Your task to perform on an android device: set the stopwatch Image 0: 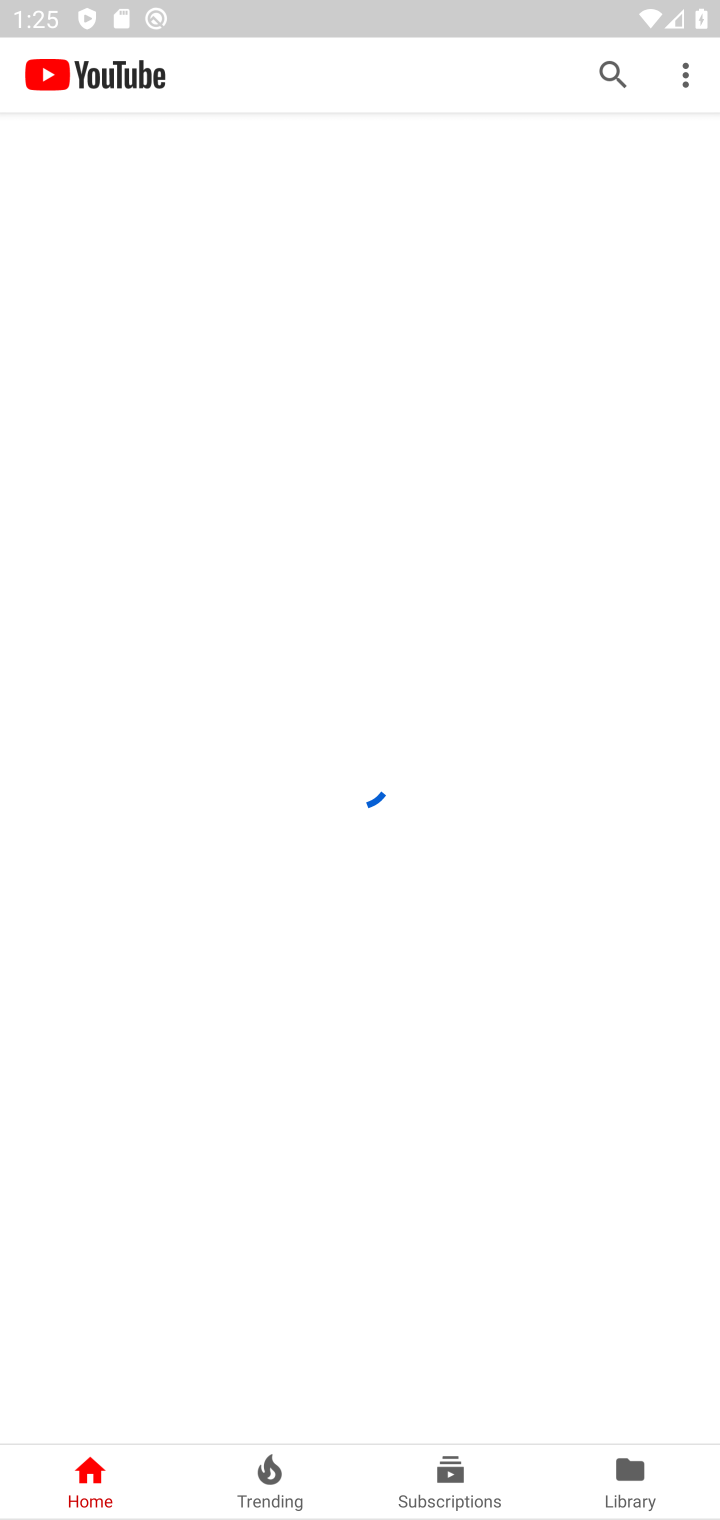
Step 0: press home button
Your task to perform on an android device: set the stopwatch Image 1: 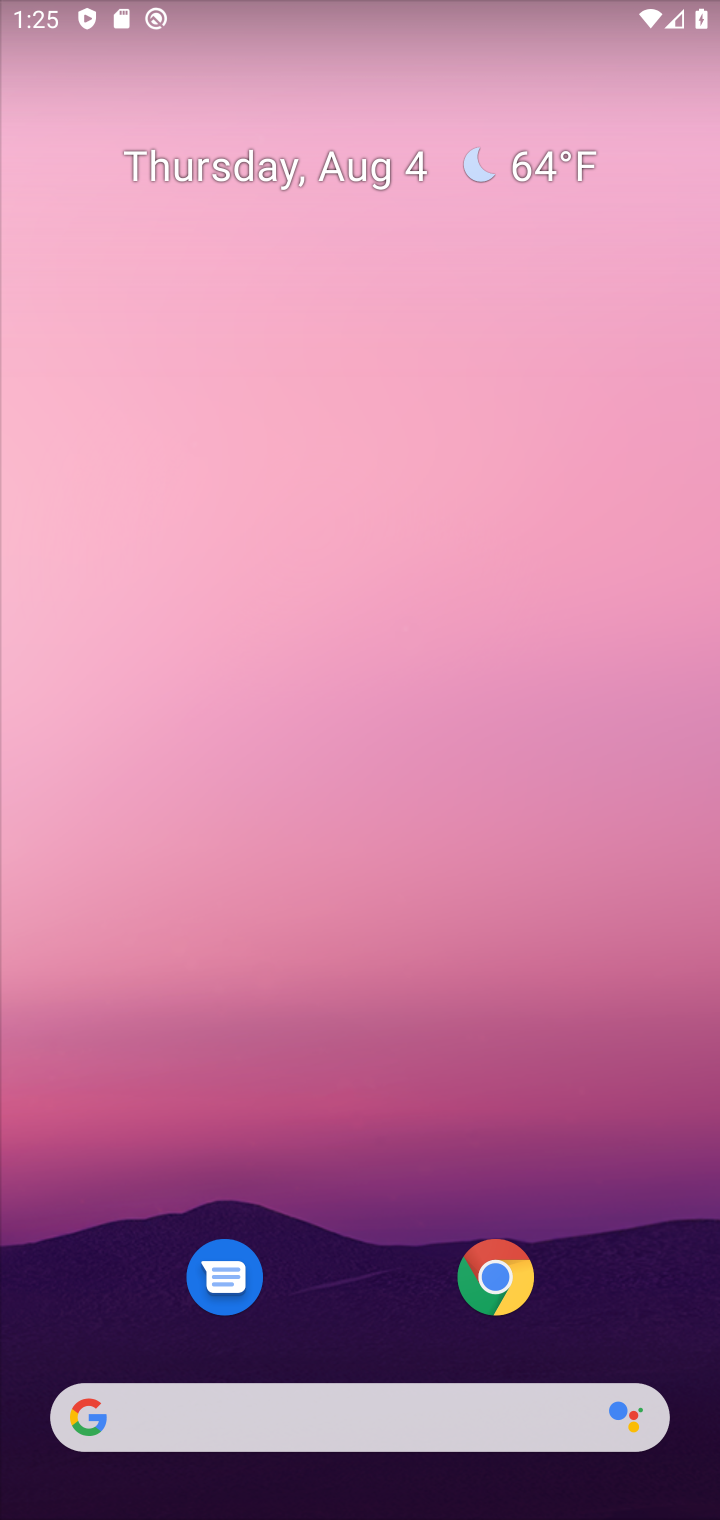
Step 1: drag from (273, 1307) to (327, 361)
Your task to perform on an android device: set the stopwatch Image 2: 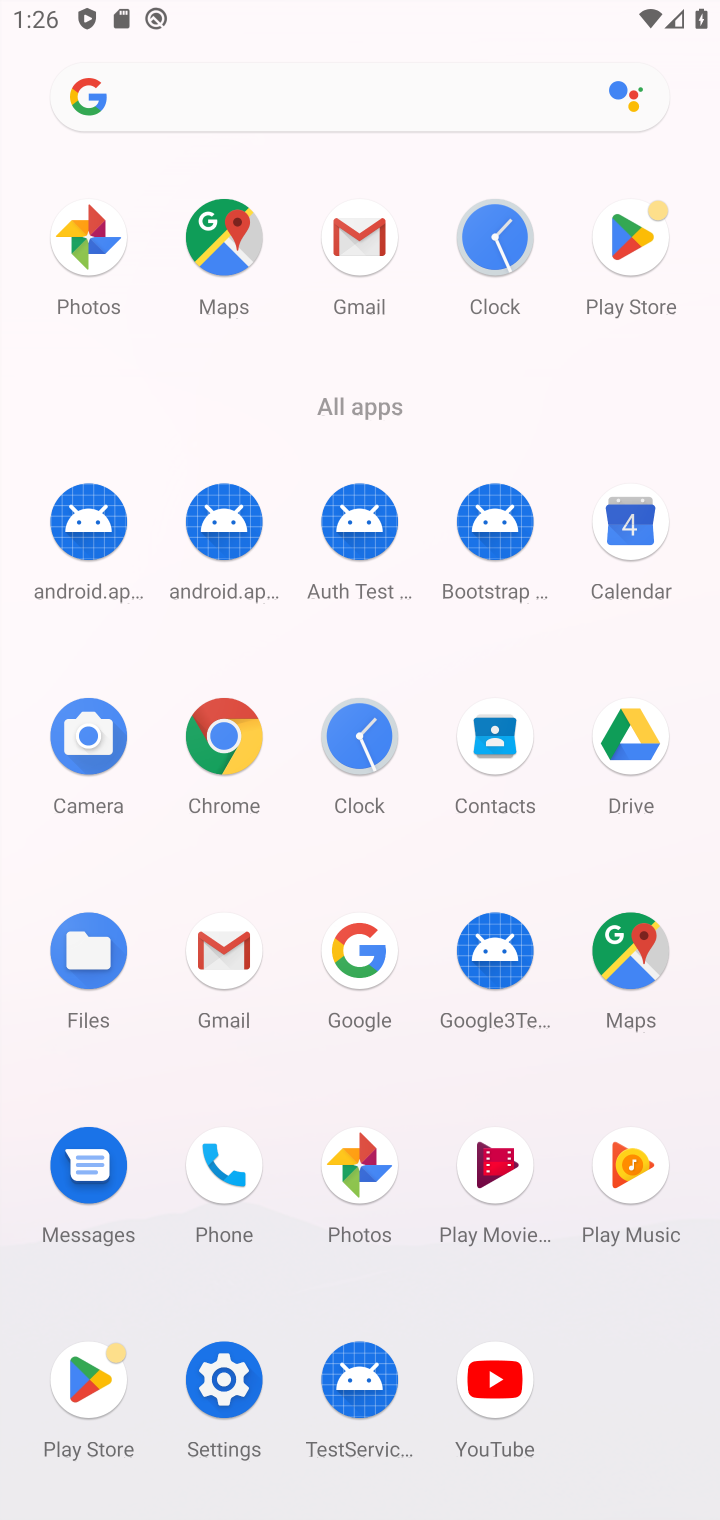
Step 2: click (353, 717)
Your task to perform on an android device: set the stopwatch Image 3: 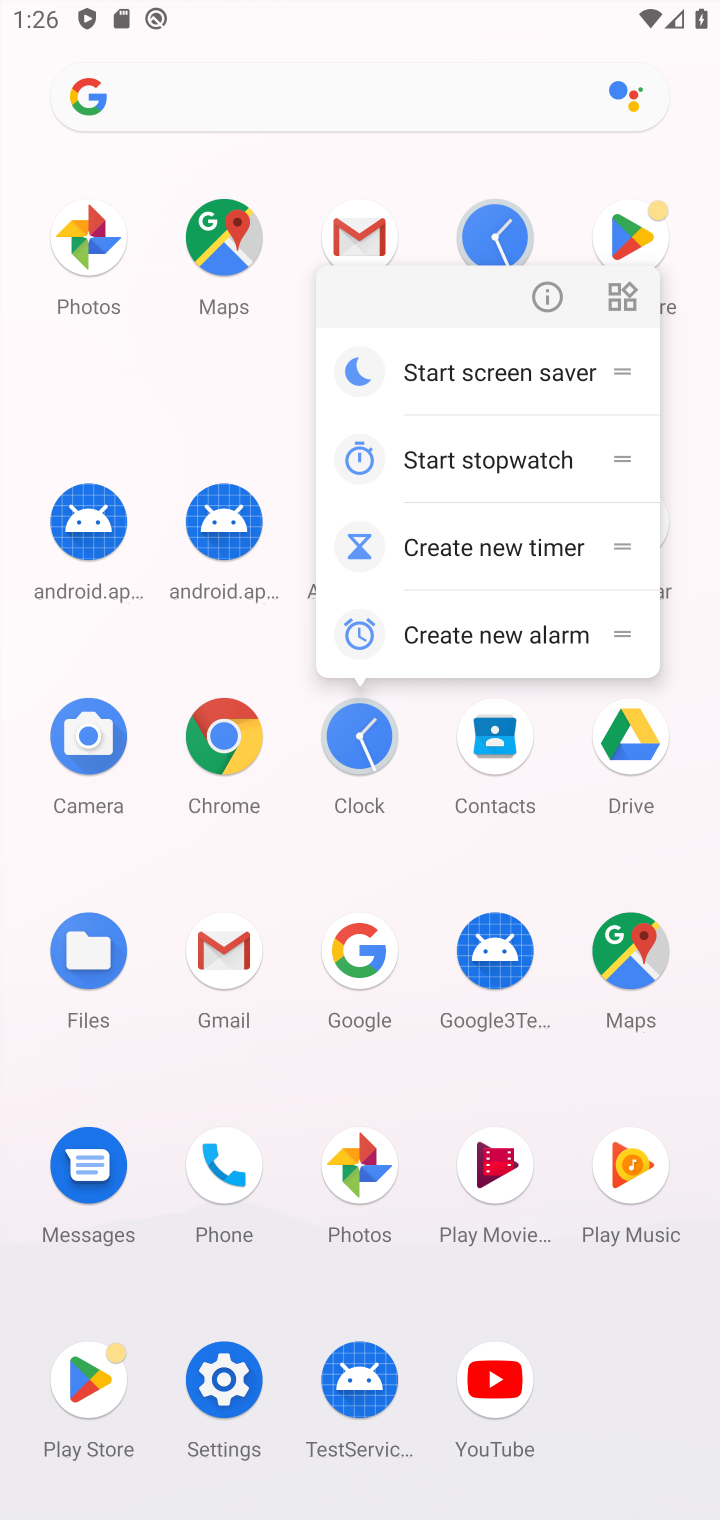
Step 3: click (353, 750)
Your task to perform on an android device: set the stopwatch Image 4: 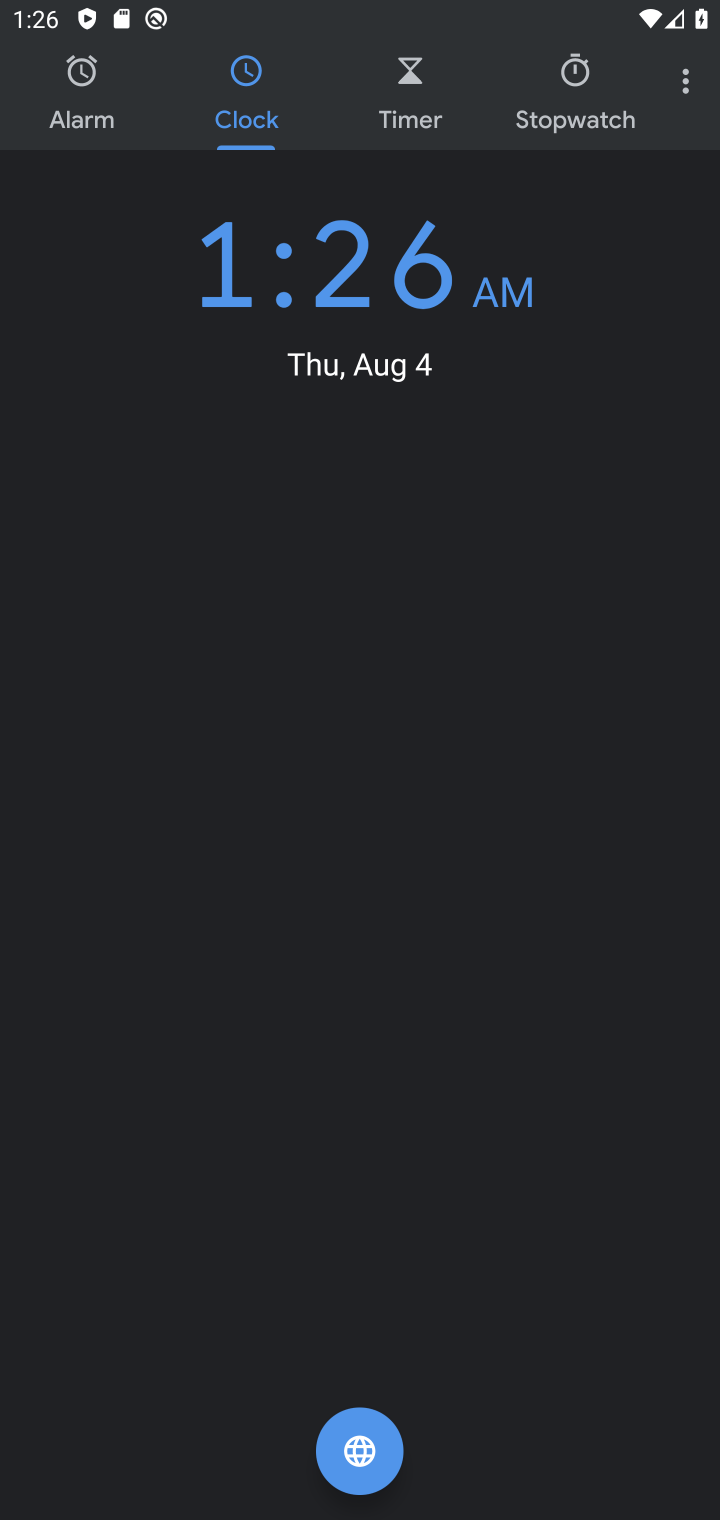
Step 4: click (573, 81)
Your task to perform on an android device: set the stopwatch Image 5: 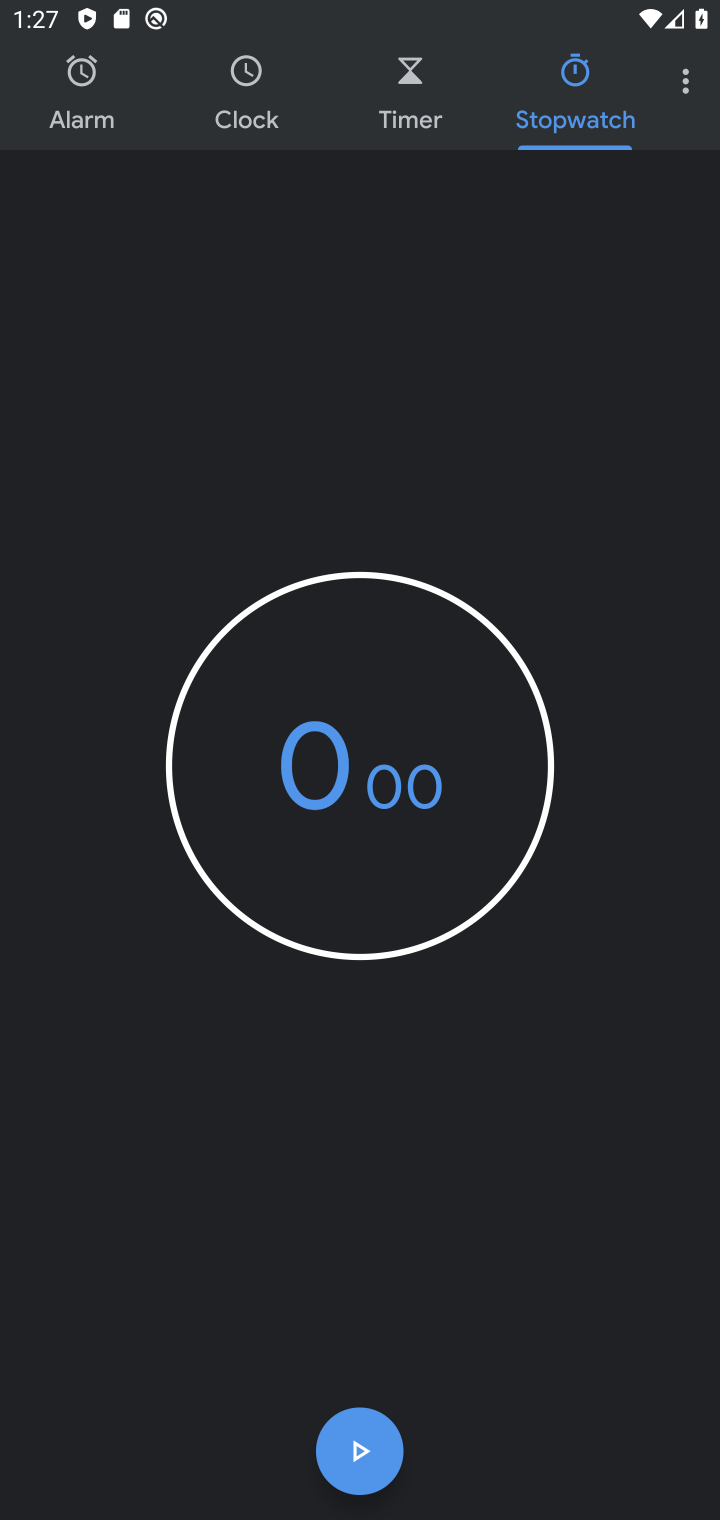
Step 5: task complete